Your task to perform on an android device: Open Maps and search for coffee Image 0: 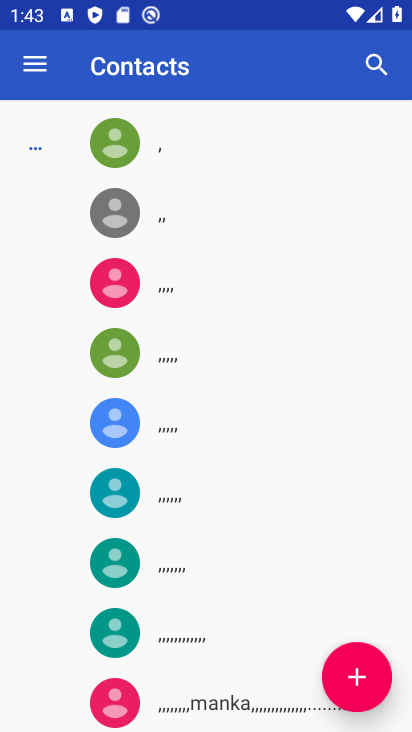
Step 0: drag from (257, 342) to (266, 297)
Your task to perform on an android device: Open Maps and search for coffee Image 1: 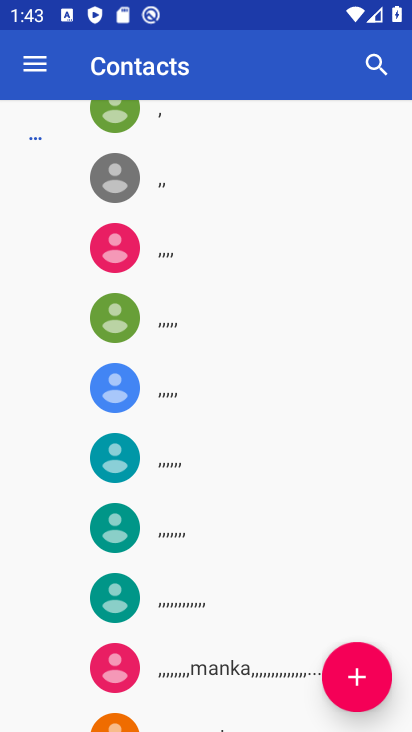
Step 1: press home button
Your task to perform on an android device: Open Maps and search for coffee Image 2: 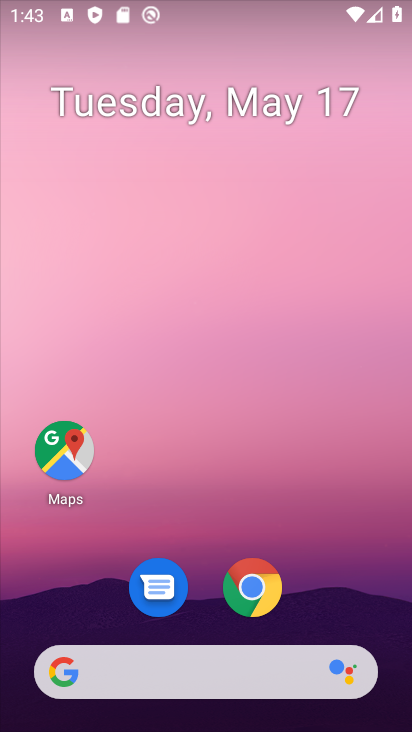
Step 2: click (45, 422)
Your task to perform on an android device: Open Maps and search for coffee Image 3: 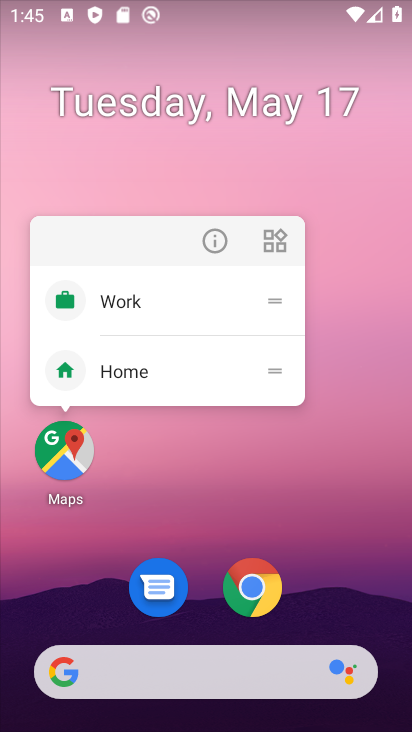
Step 3: click (204, 248)
Your task to perform on an android device: Open Maps and search for coffee Image 4: 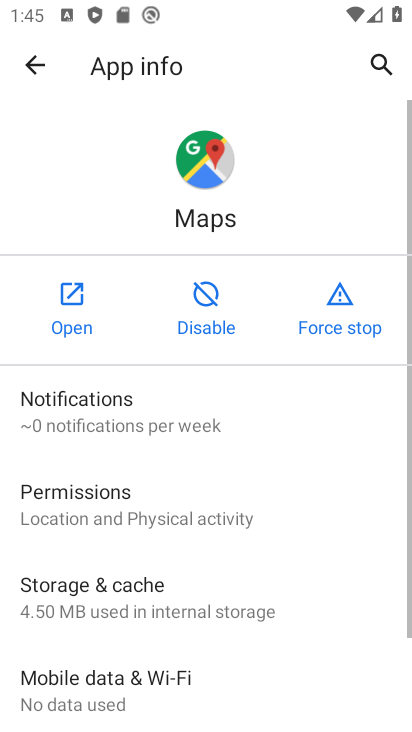
Step 4: click (77, 328)
Your task to perform on an android device: Open Maps and search for coffee Image 5: 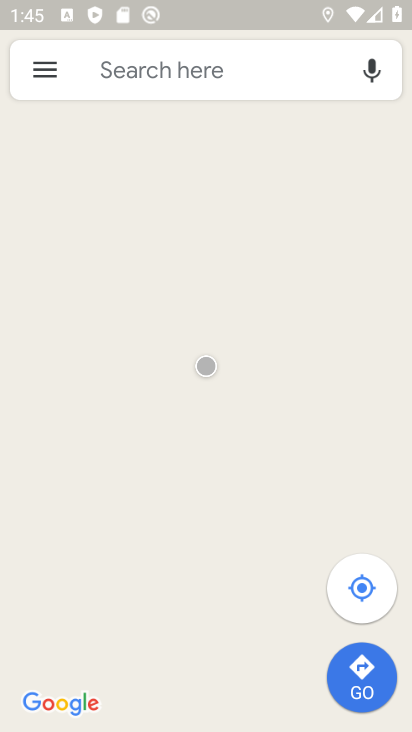
Step 5: click (249, 75)
Your task to perform on an android device: Open Maps and search for coffee Image 6: 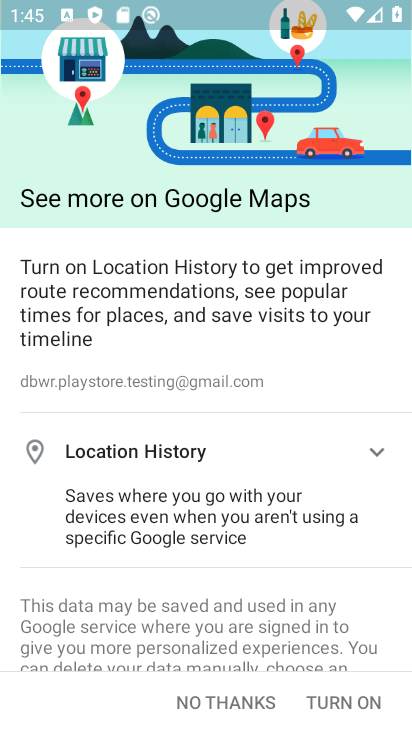
Step 6: click (372, 712)
Your task to perform on an android device: Open Maps and search for coffee Image 7: 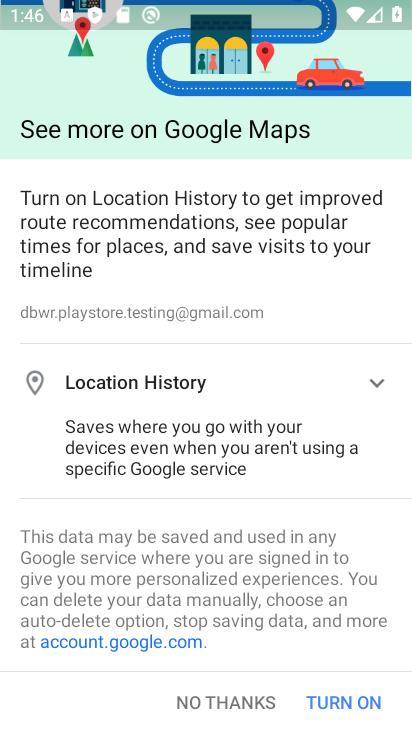
Step 7: click (350, 709)
Your task to perform on an android device: Open Maps and search for coffee Image 8: 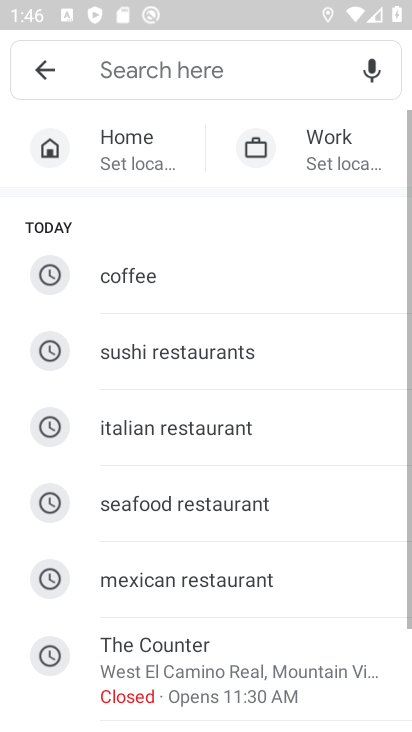
Step 8: click (215, 76)
Your task to perform on an android device: Open Maps and search for coffee Image 9: 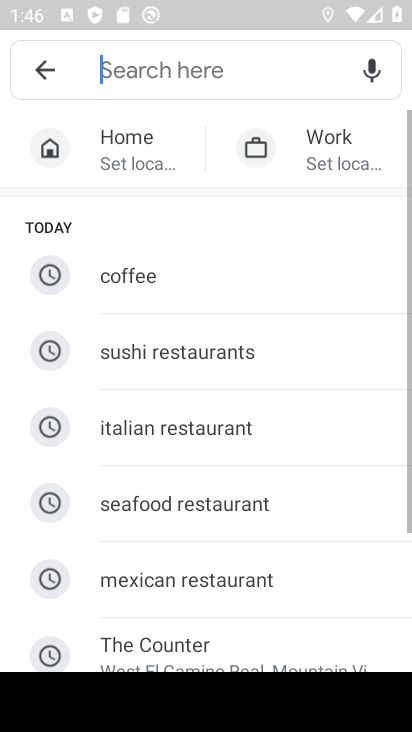
Step 9: click (183, 298)
Your task to perform on an android device: Open Maps and search for coffee Image 10: 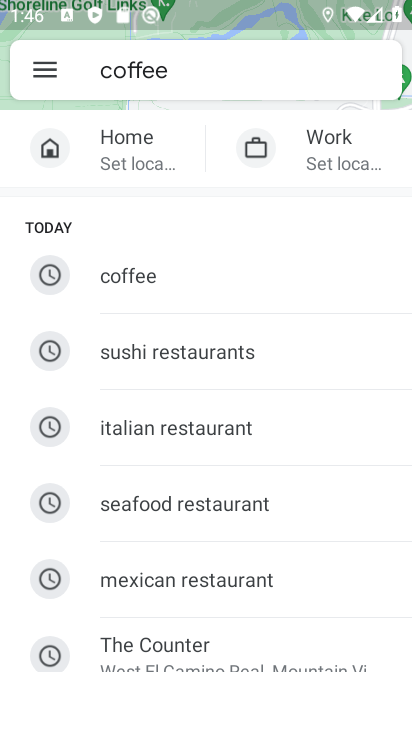
Step 10: task complete